Your task to perform on an android device: add a contact in the contacts app Image 0: 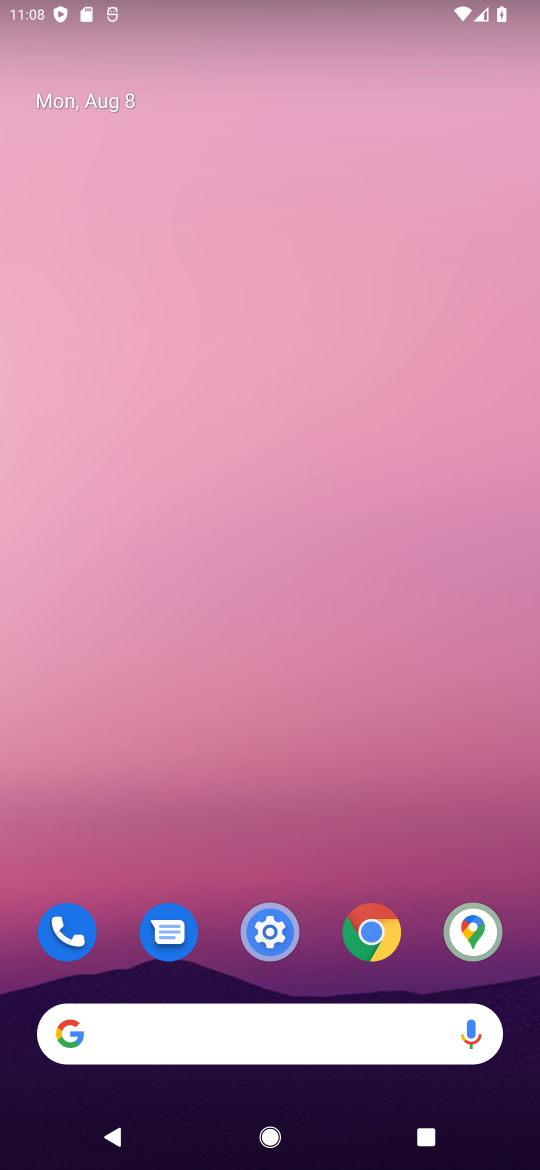
Step 0: click (40, 917)
Your task to perform on an android device: add a contact in the contacts app Image 1: 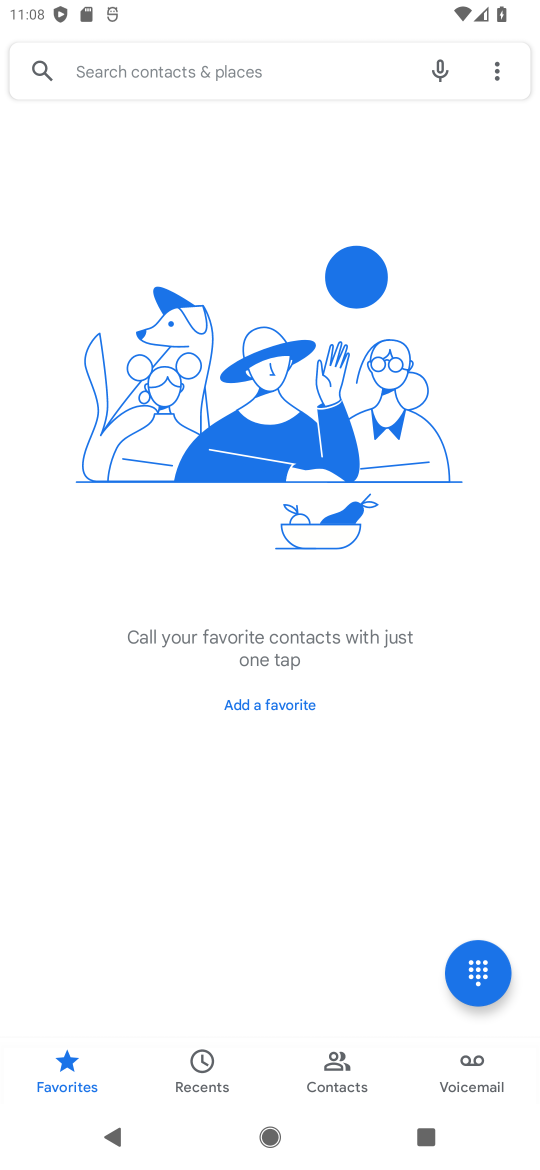
Step 1: click (339, 1063)
Your task to perform on an android device: add a contact in the contacts app Image 2: 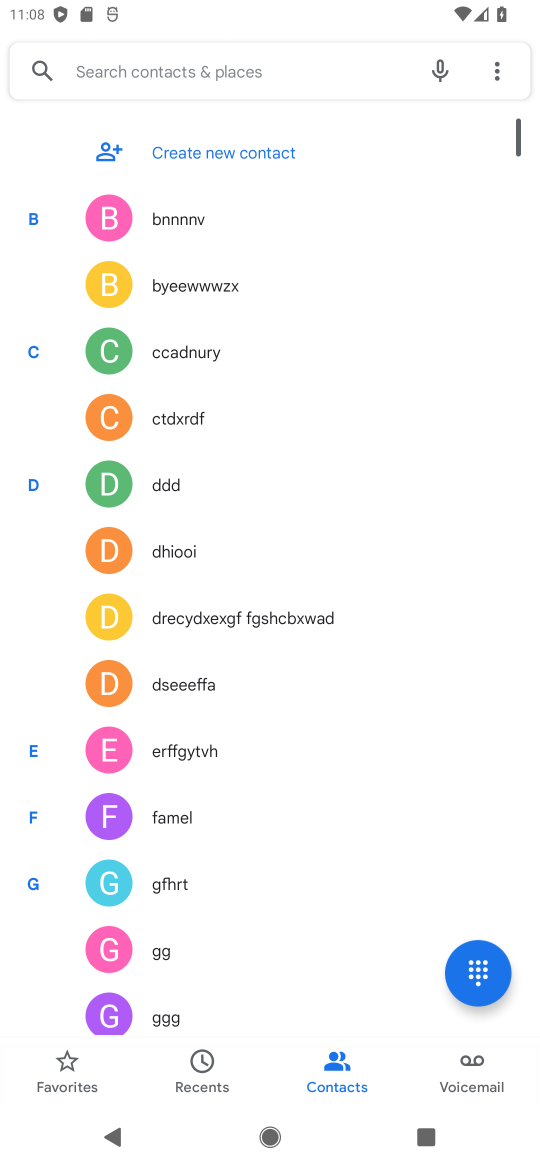
Step 2: click (327, 146)
Your task to perform on an android device: add a contact in the contacts app Image 3: 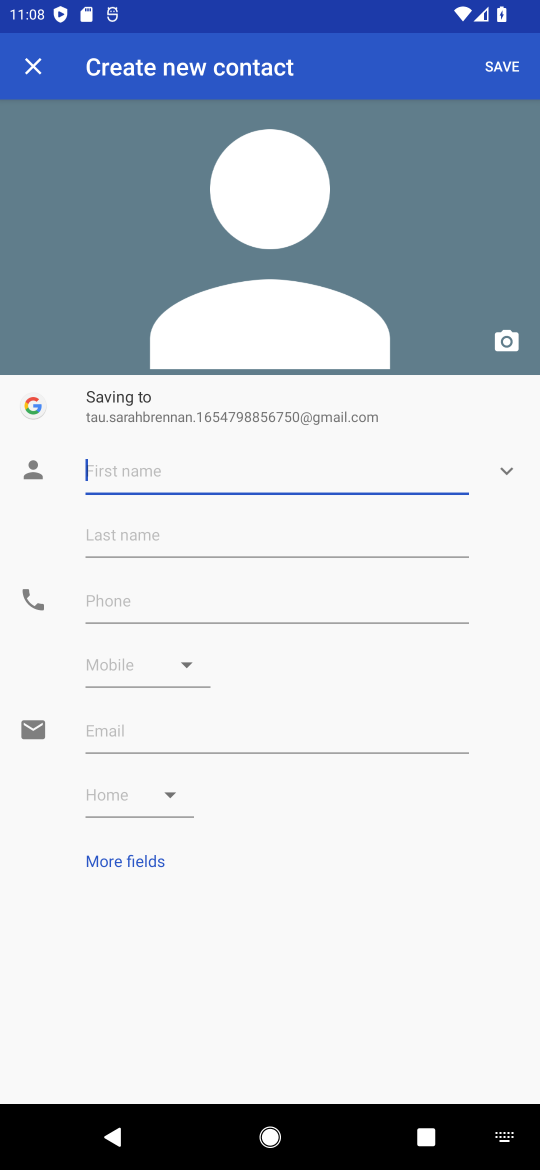
Step 3: click (316, 451)
Your task to perform on an android device: add a contact in the contacts app Image 4: 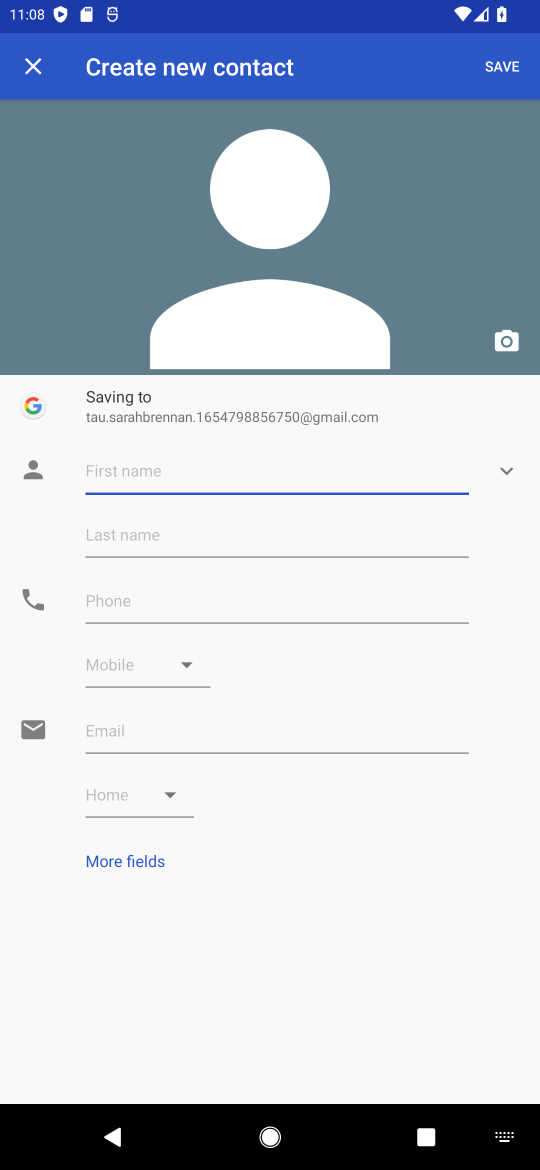
Step 4: type "oiuygfd"
Your task to perform on an android device: add a contact in the contacts app Image 5: 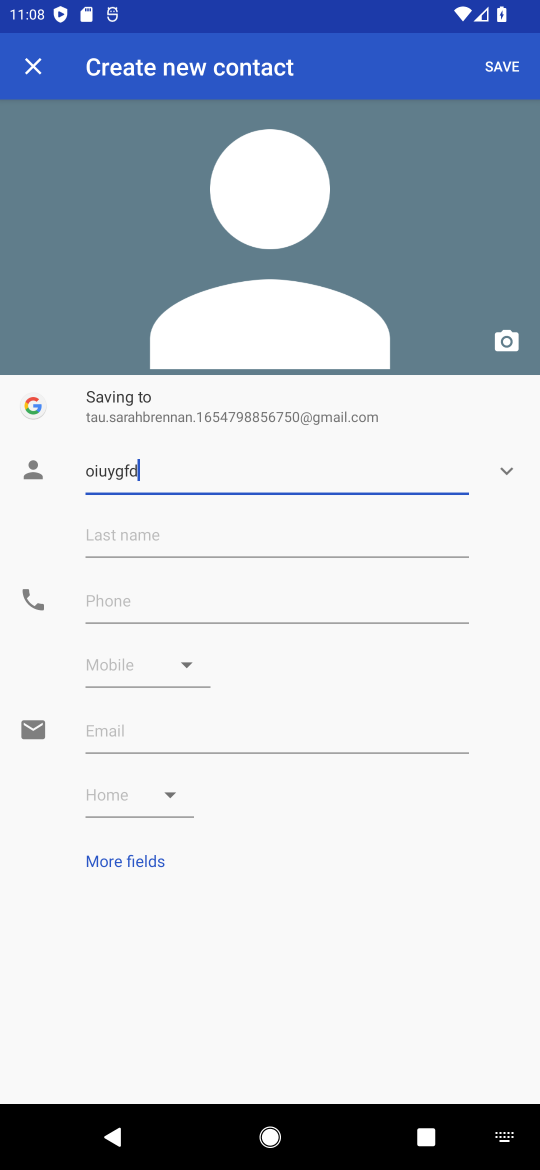
Step 5: click (263, 607)
Your task to perform on an android device: add a contact in the contacts app Image 6: 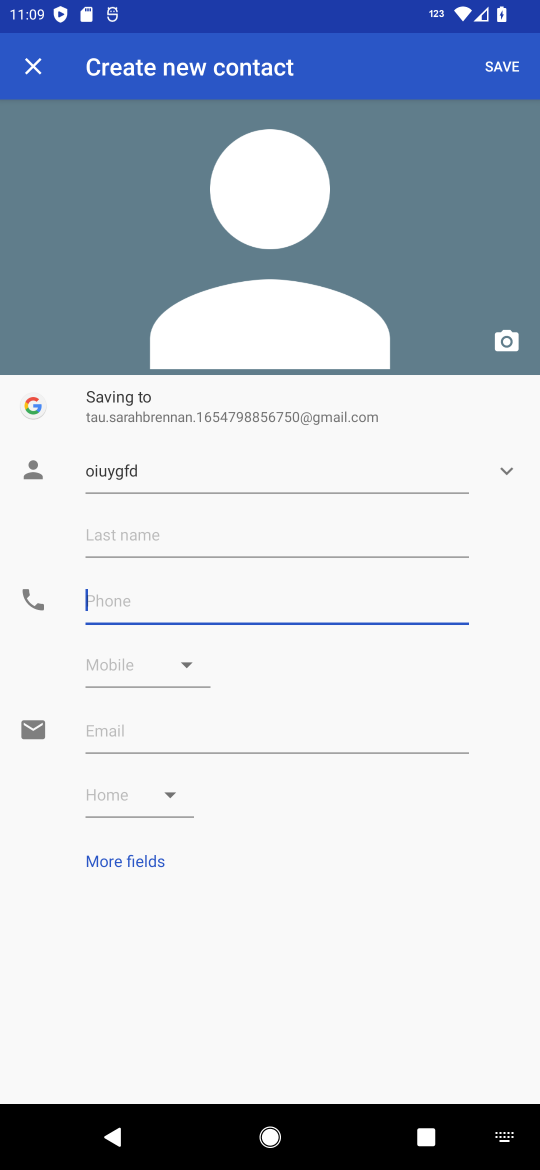
Step 6: type "0987654e34"
Your task to perform on an android device: add a contact in the contacts app Image 7: 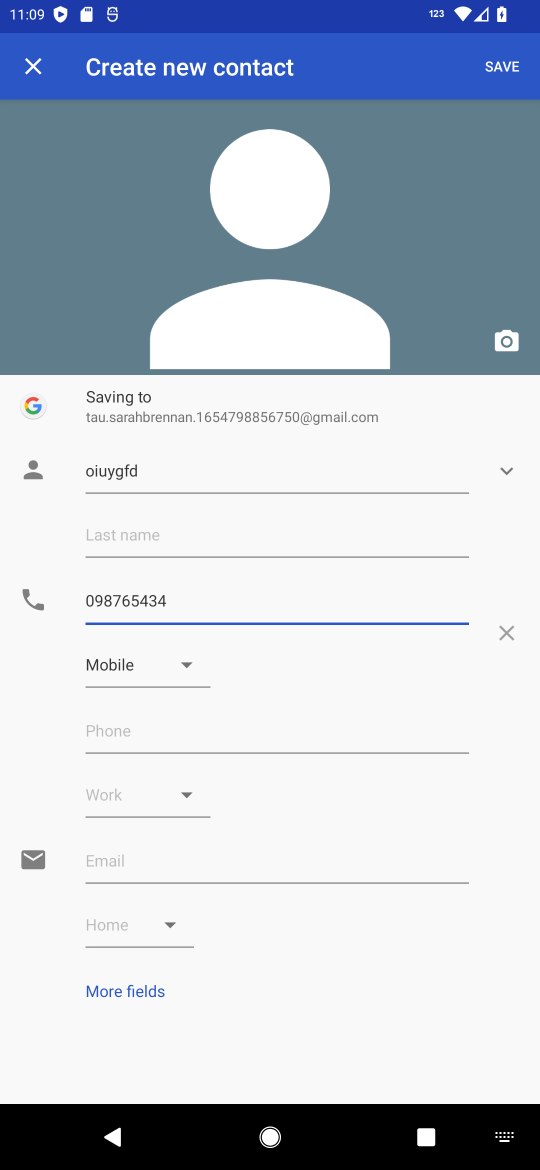
Step 7: click (512, 73)
Your task to perform on an android device: add a contact in the contacts app Image 8: 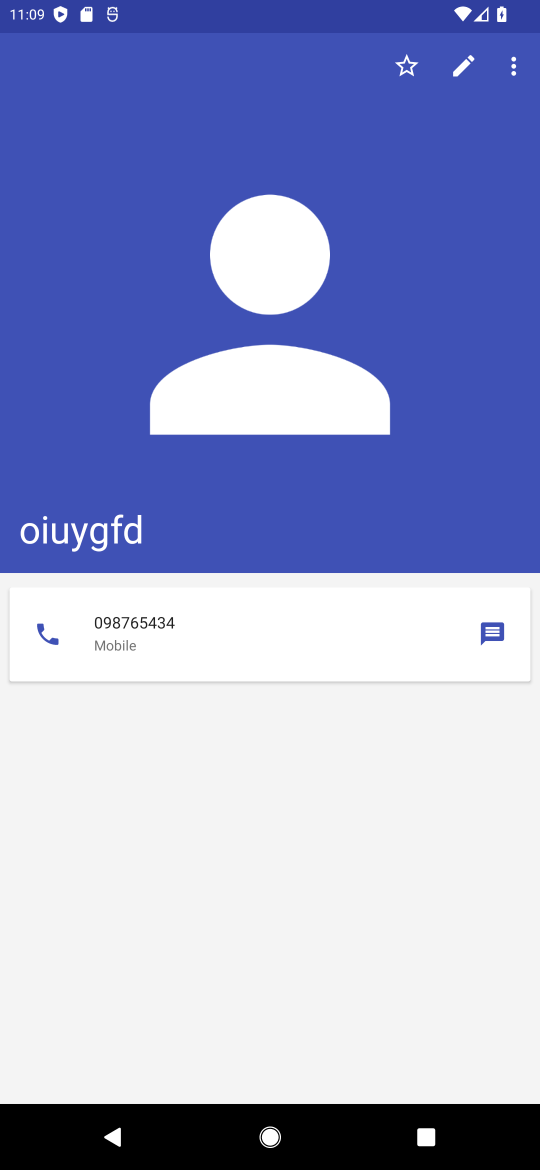
Step 8: task complete